Your task to perform on an android device: Turn on the flashlight Image 0: 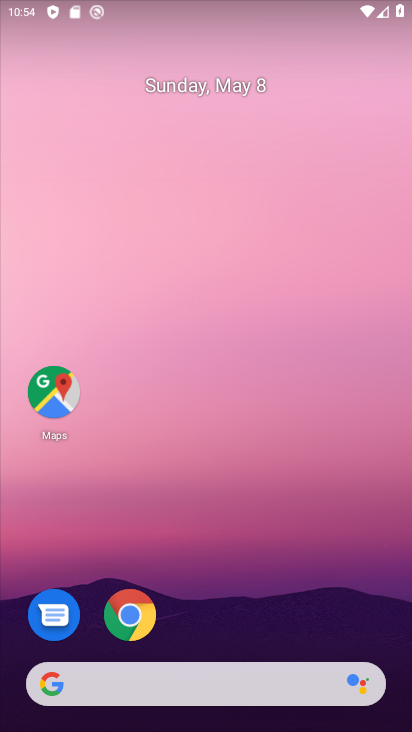
Step 0: drag from (265, 569) to (361, 7)
Your task to perform on an android device: Turn on the flashlight Image 1: 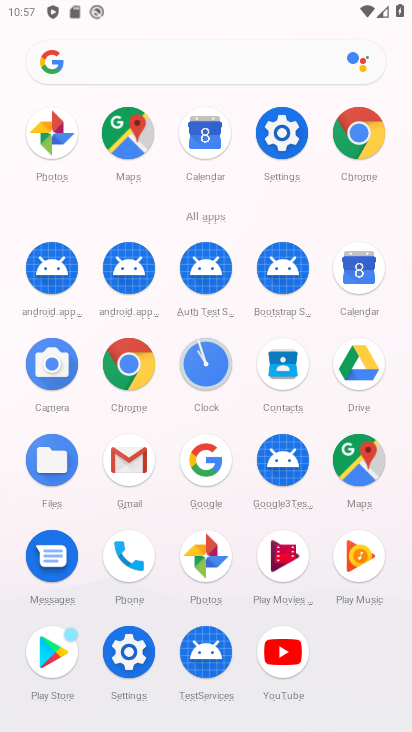
Step 1: click (278, 136)
Your task to perform on an android device: Turn on the flashlight Image 2: 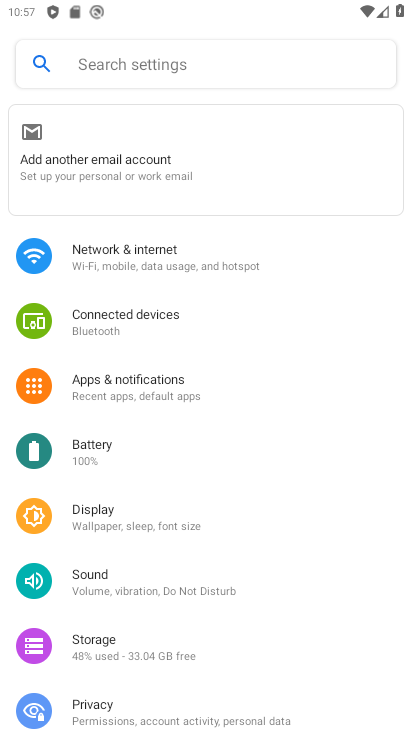
Step 2: click (121, 60)
Your task to perform on an android device: Turn on the flashlight Image 3: 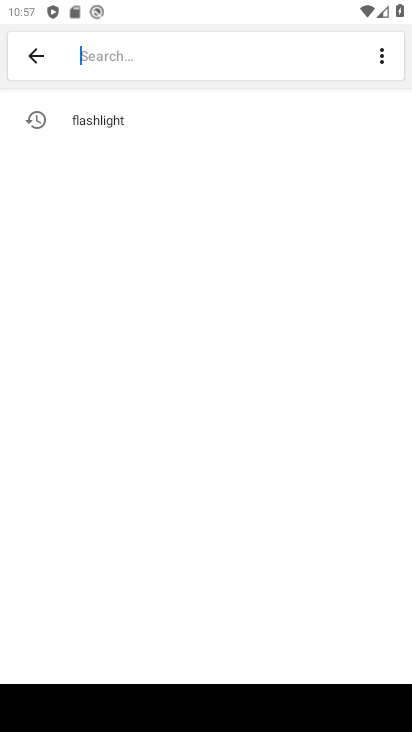
Step 3: type "flashlight"
Your task to perform on an android device: Turn on the flashlight Image 4: 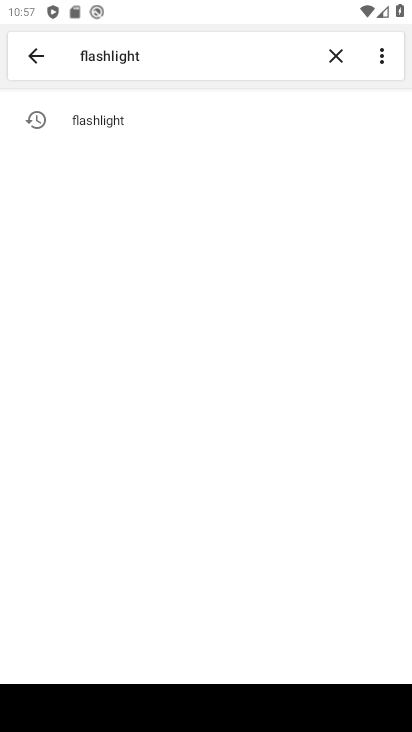
Step 4: click (93, 130)
Your task to perform on an android device: Turn on the flashlight Image 5: 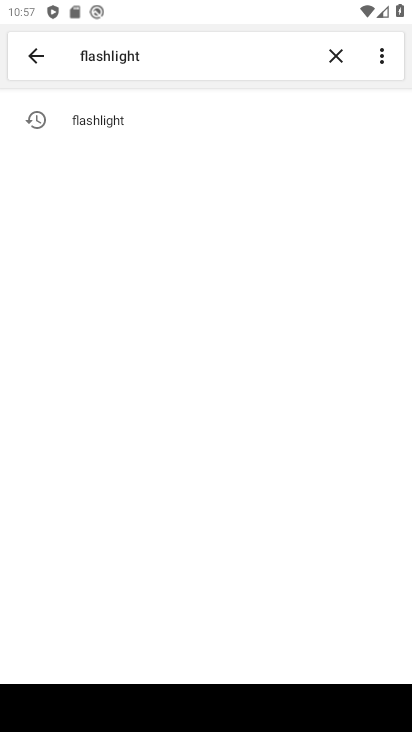
Step 5: click (189, 118)
Your task to perform on an android device: Turn on the flashlight Image 6: 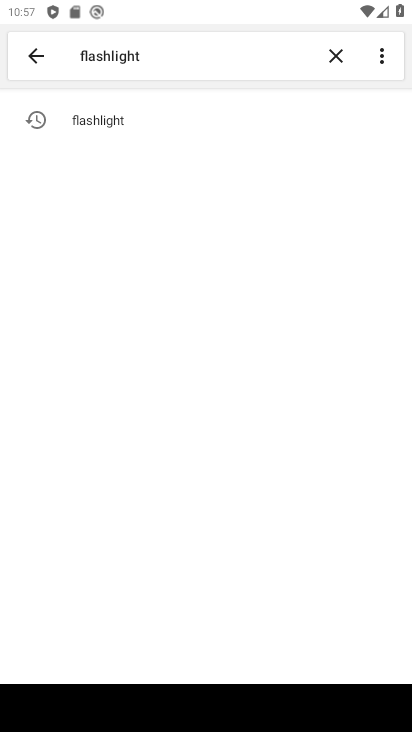
Step 6: task complete